Your task to perform on an android device: turn on sleep mode Image 0: 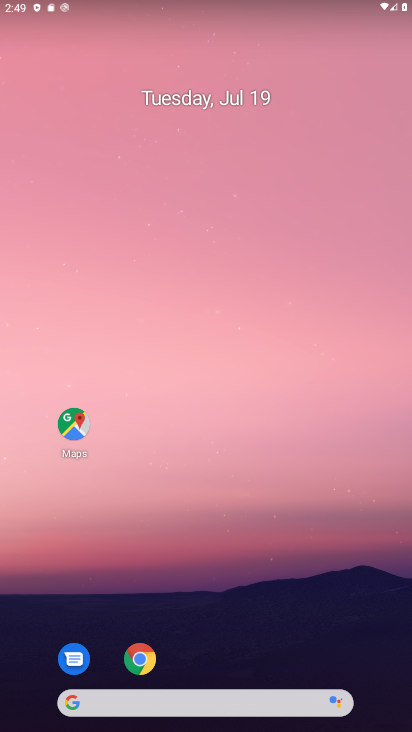
Step 0: drag from (213, 579) to (211, 1)
Your task to perform on an android device: turn on sleep mode Image 1: 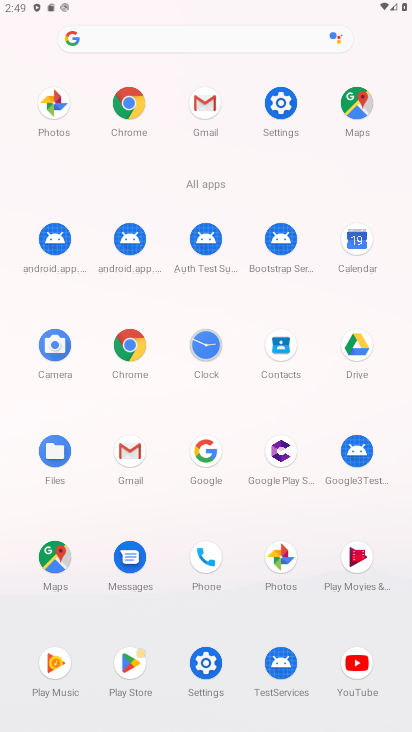
Step 1: click (277, 103)
Your task to perform on an android device: turn on sleep mode Image 2: 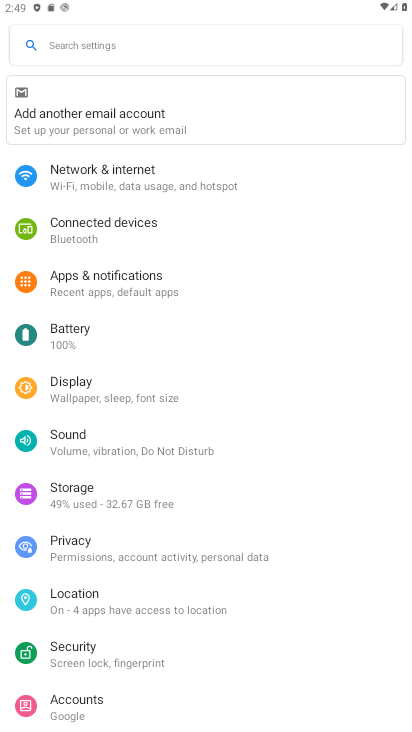
Step 2: click (109, 398)
Your task to perform on an android device: turn on sleep mode Image 3: 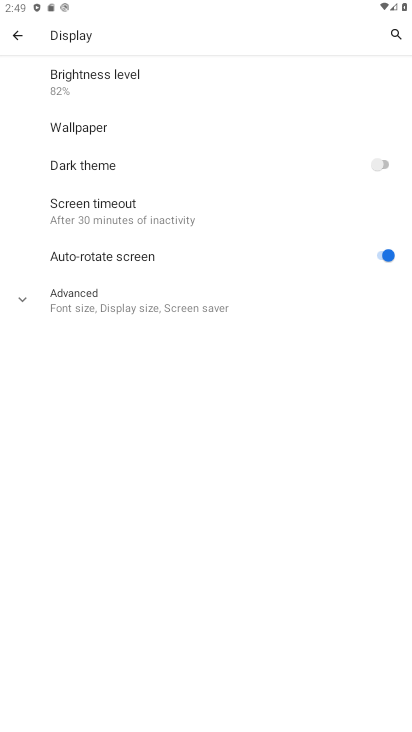
Step 3: click (95, 305)
Your task to perform on an android device: turn on sleep mode Image 4: 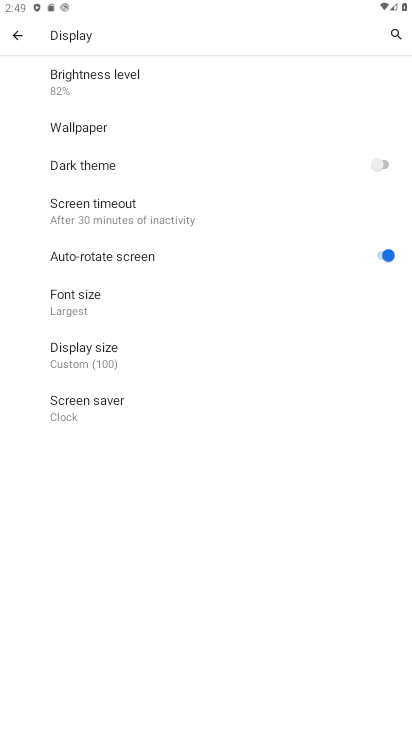
Step 4: task complete